Your task to perform on an android device: open app "Firefox Browser" Image 0: 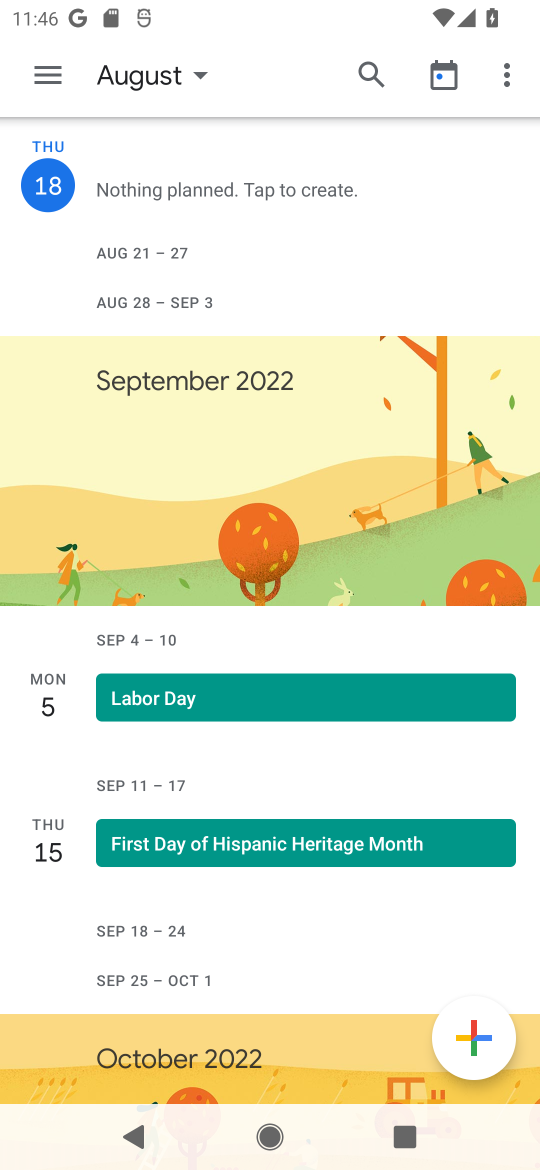
Step 0: press back button
Your task to perform on an android device: open app "Firefox Browser" Image 1: 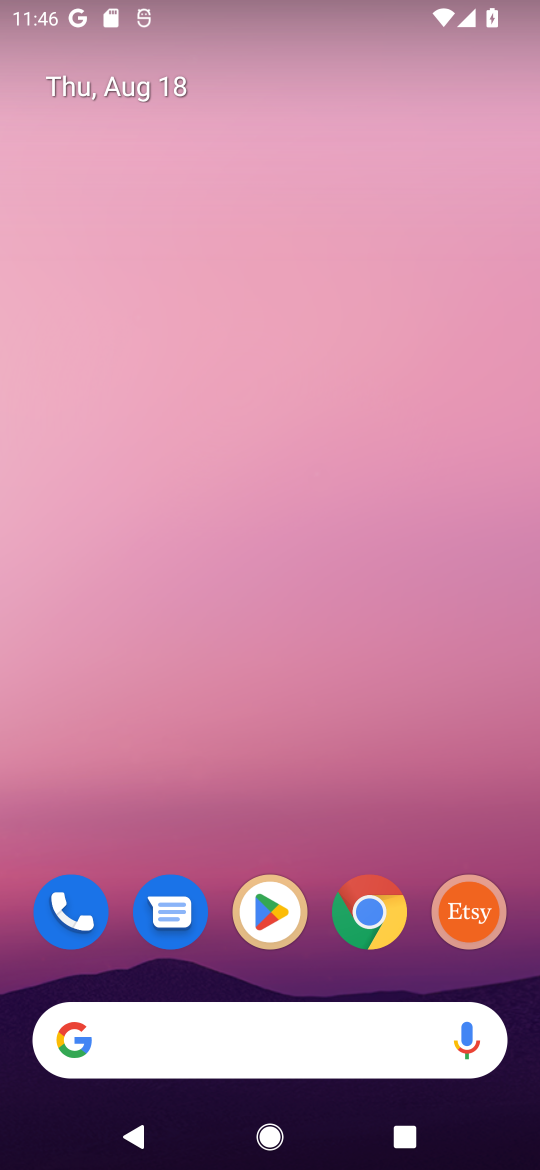
Step 1: click (255, 902)
Your task to perform on an android device: open app "Firefox Browser" Image 2: 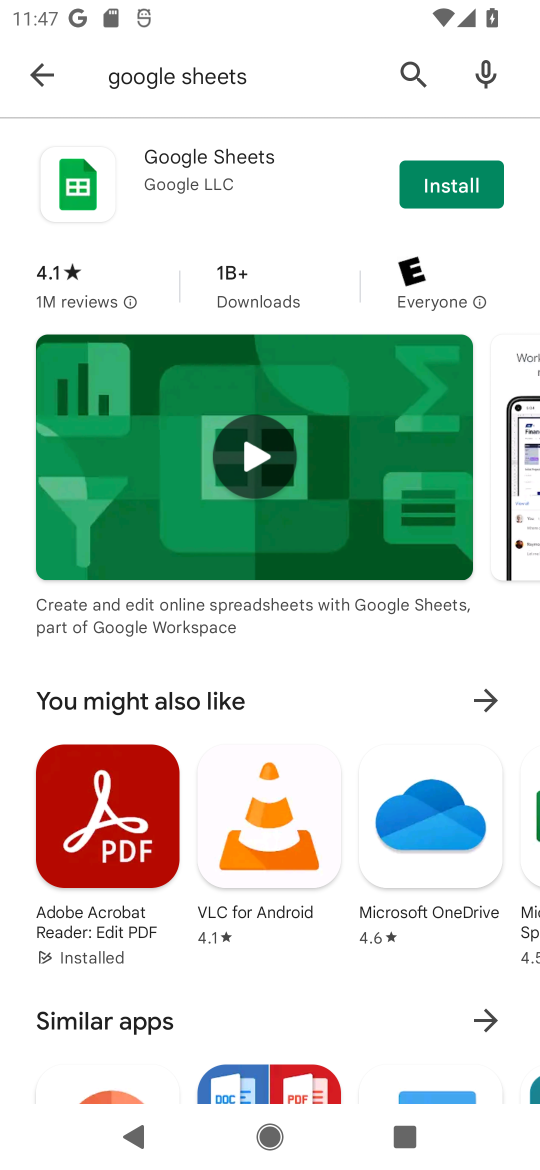
Step 2: click (421, 56)
Your task to perform on an android device: open app "Firefox Browser" Image 3: 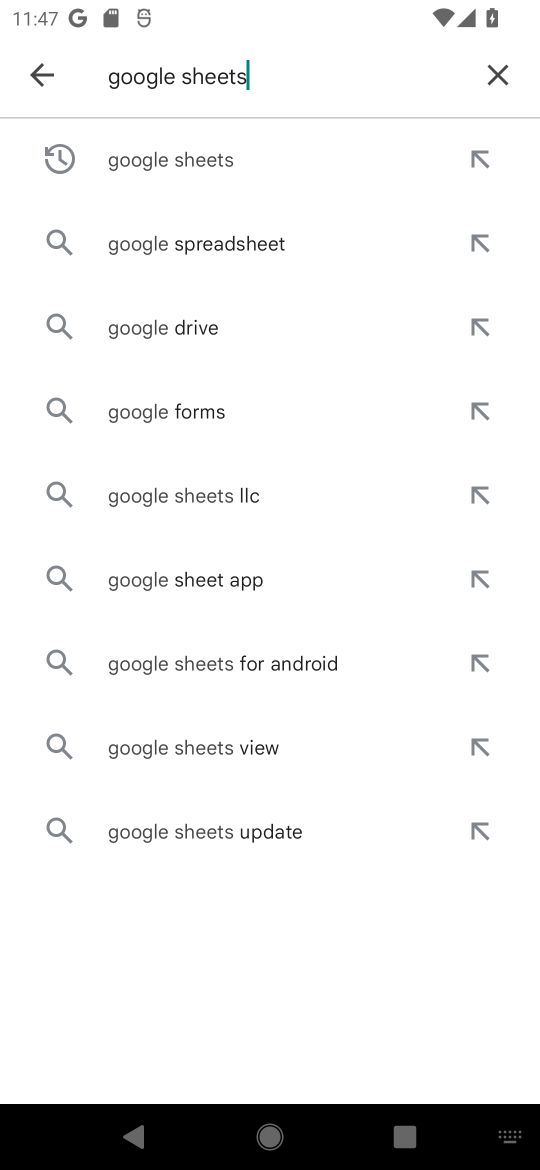
Step 3: click (518, 61)
Your task to perform on an android device: open app "Firefox Browser" Image 4: 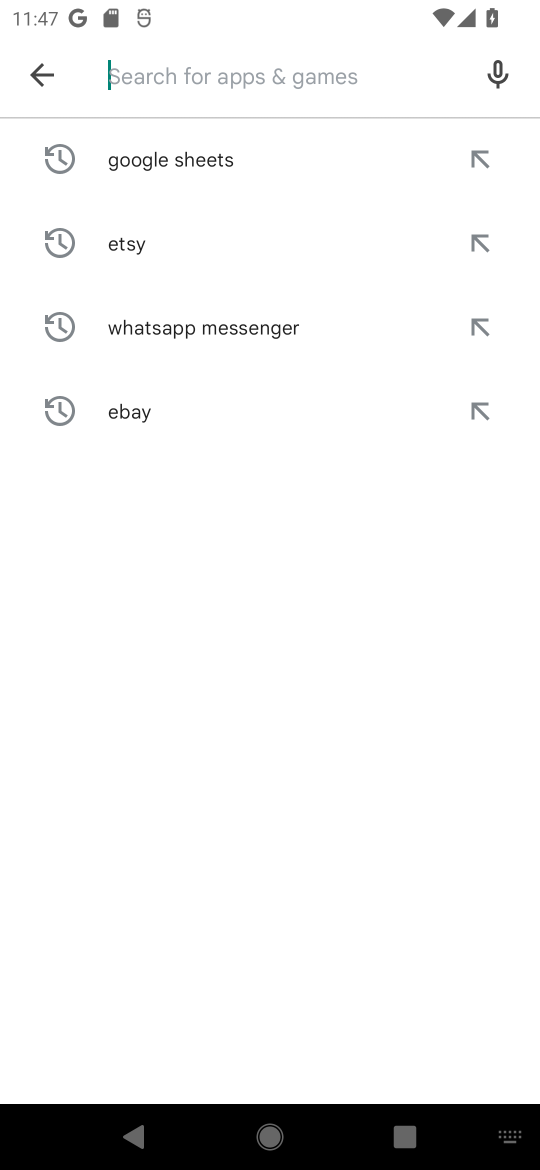
Step 4: click (164, 81)
Your task to perform on an android device: open app "Firefox Browser" Image 5: 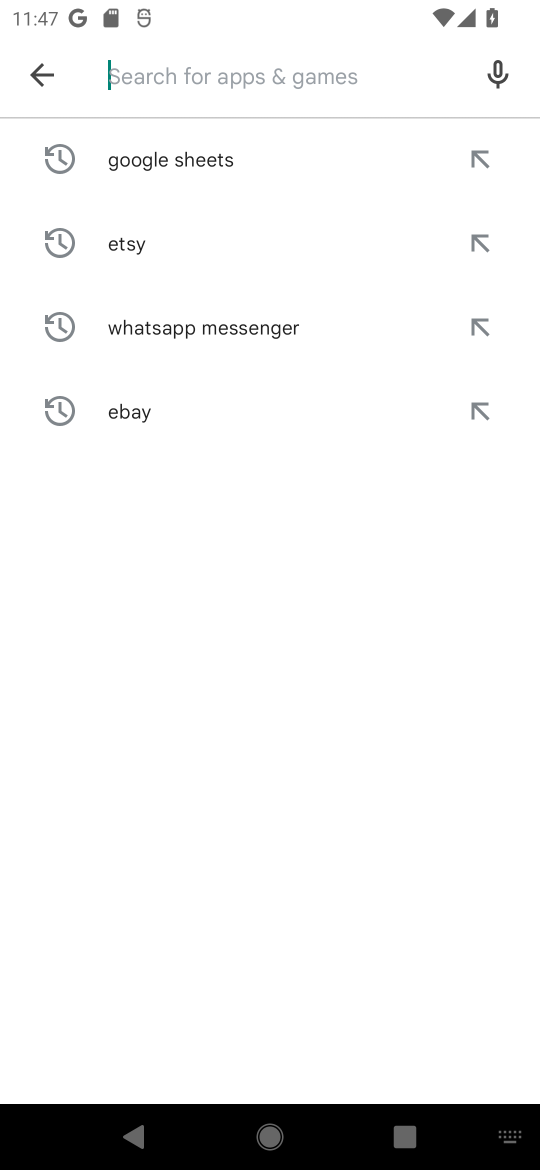
Step 5: type "Firefox Browser"
Your task to perform on an android device: open app "Firefox Browser" Image 6: 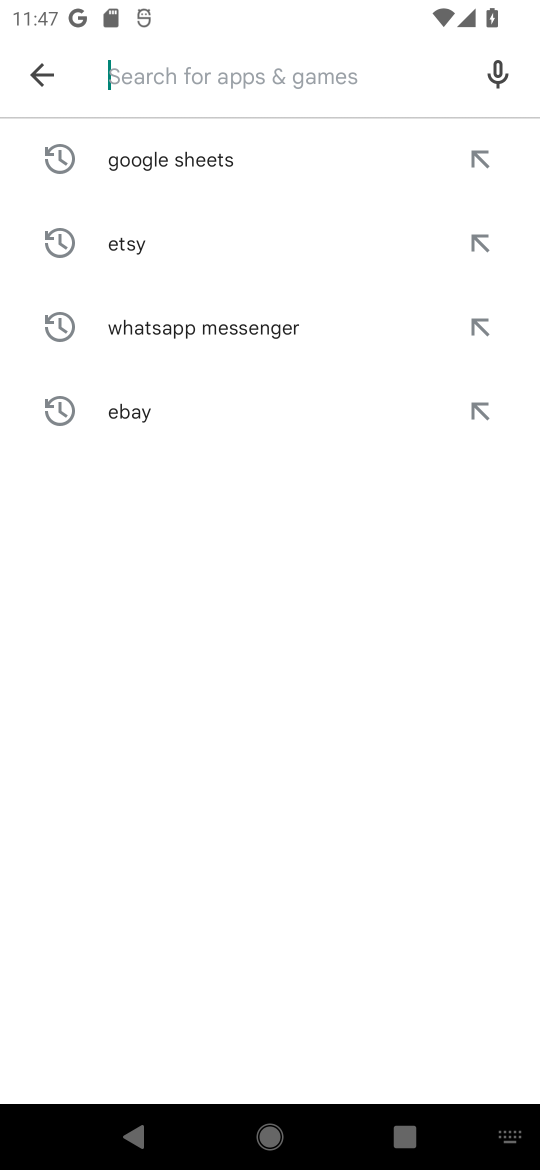
Step 6: click (246, 653)
Your task to perform on an android device: open app "Firefox Browser" Image 7: 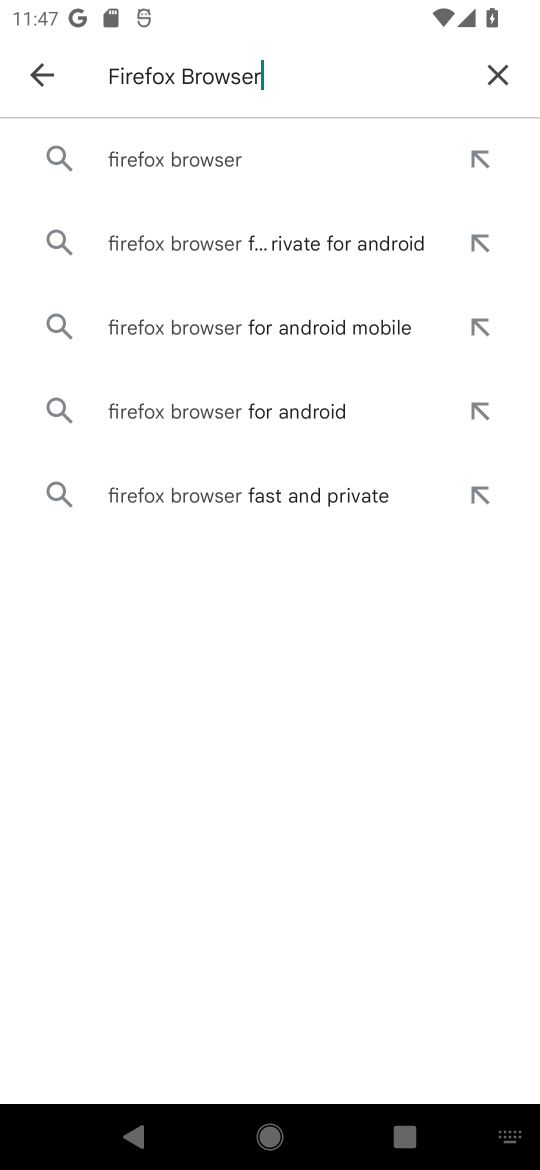
Step 7: click (175, 167)
Your task to perform on an android device: open app "Firefox Browser" Image 8: 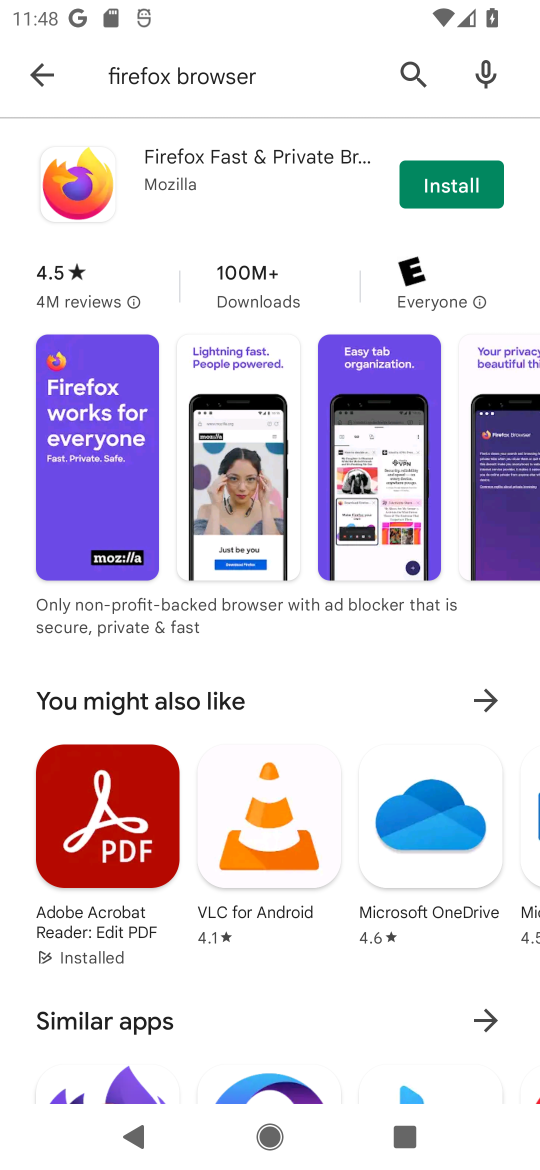
Step 8: task complete